Your task to perform on an android device: Open Google Chrome Image 0: 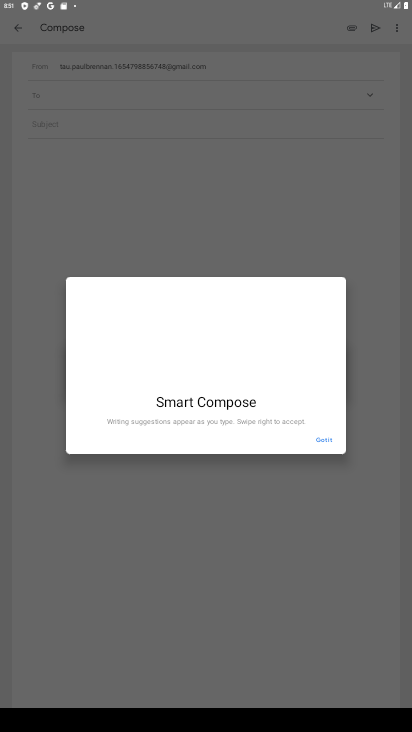
Step 0: press home button
Your task to perform on an android device: Open Google Chrome Image 1: 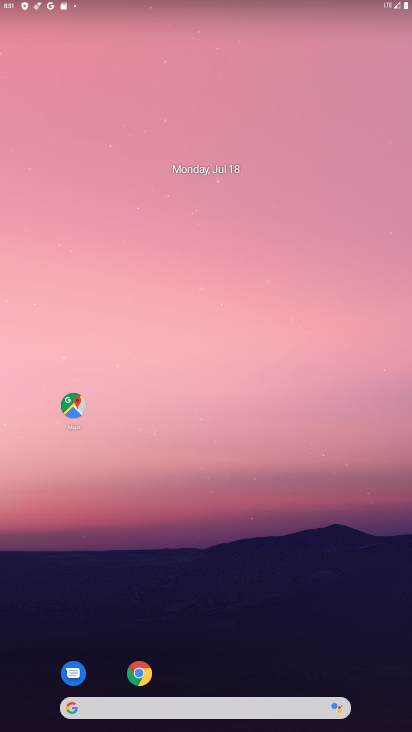
Step 1: click (141, 674)
Your task to perform on an android device: Open Google Chrome Image 2: 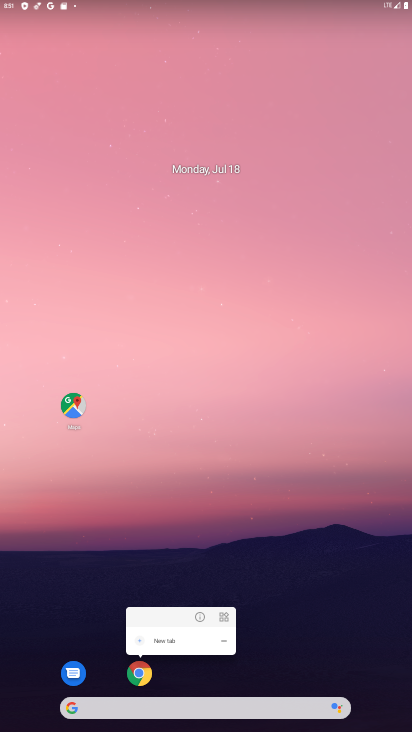
Step 2: click (150, 667)
Your task to perform on an android device: Open Google Chrome Image 3: 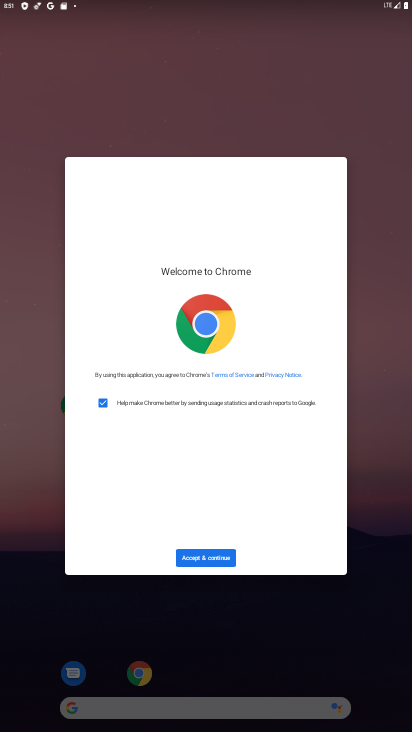
Step 3: click (192, 563)
Your task to perform on an android device: Open Google Chrome Image 4: 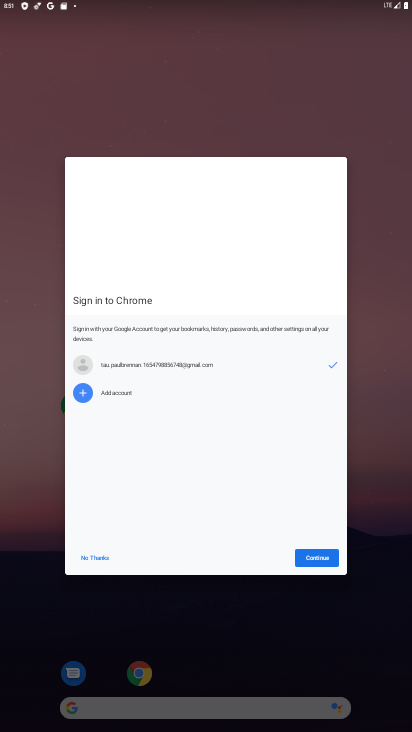
Step 4: click (318, 564)
Your task to perform on an android device: Open Google Chrome Image 5: 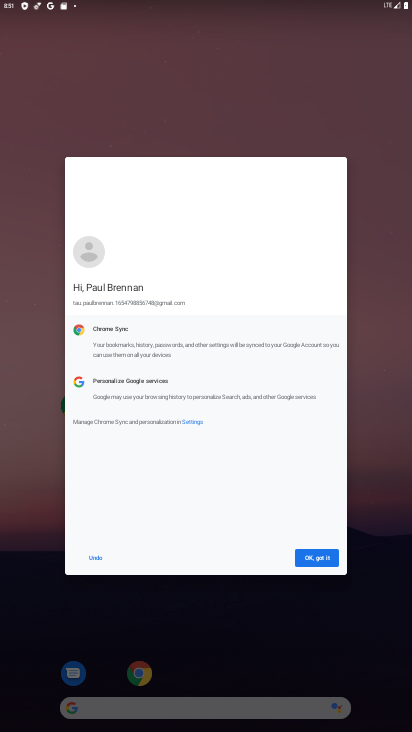
Step 5: click (316, 556)
Your task to perform on an android device: Open Google Chrome Image 6: 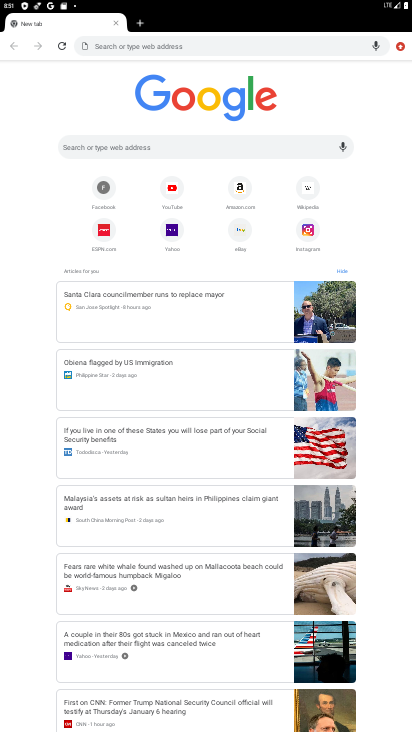
Step 6: task complete